Your task to perform on an android device: What's the weather going to be this weekend? Image 0: 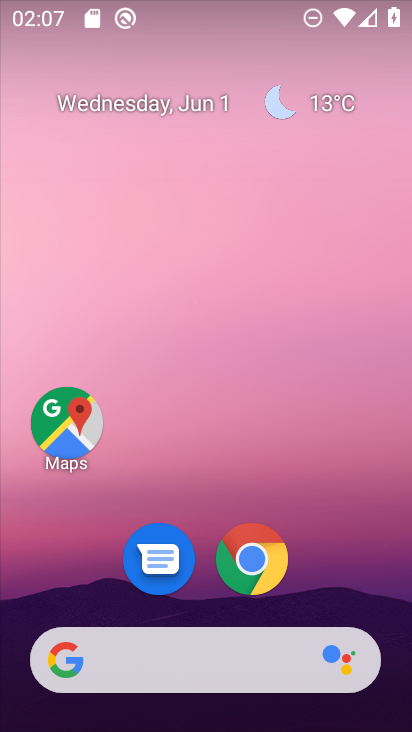
Step 0: click (332, 102)
Your task to perform on an android device: What's the weather going to be this weekend? Image 1: 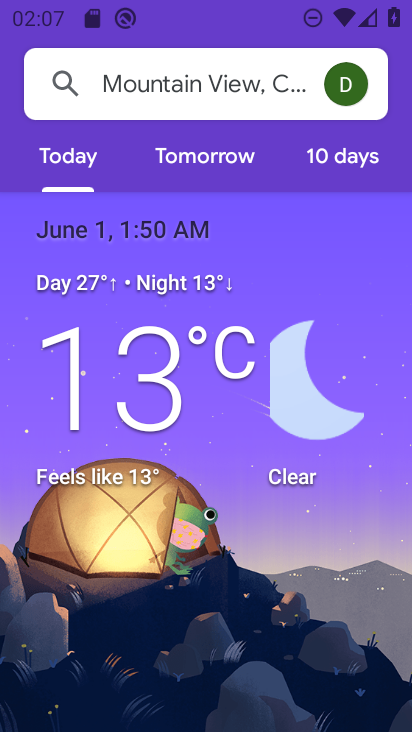
Step 1: click (320, 163)
Your task to perform on an android device: What's the weather going to be this weekend? Image 2: 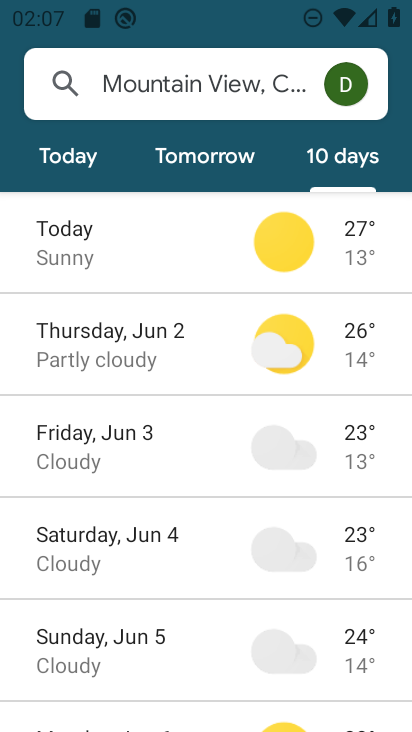
Step 2: task complete